Your task to perform on an android device: uninstall "Venmo" Image 0: 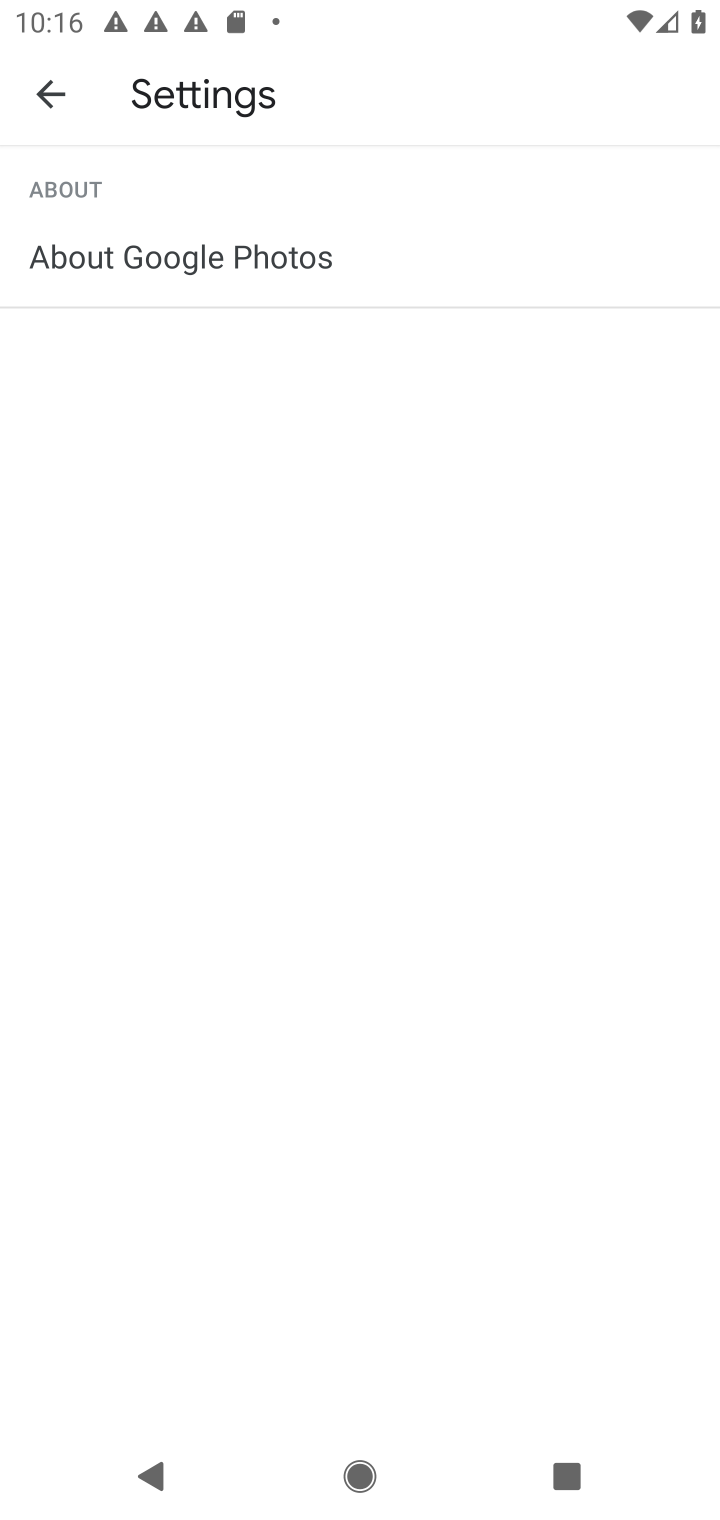
Step 0: press home button
Your task to perform on an android device: uninstall "Venmo" Image 1: 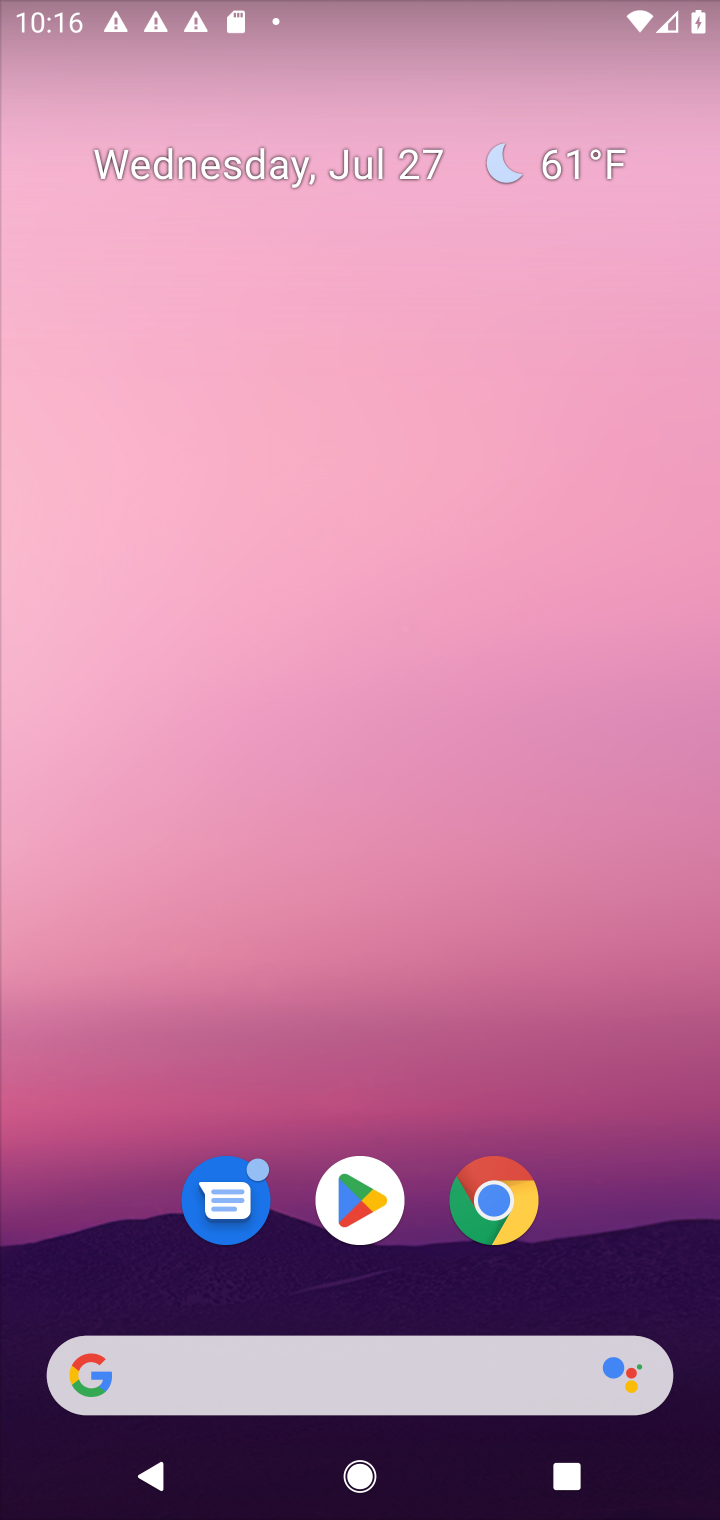
Step 1: click (357, 1205)
Your task to perform on an android device: uninstall "Venmo" Image 2: 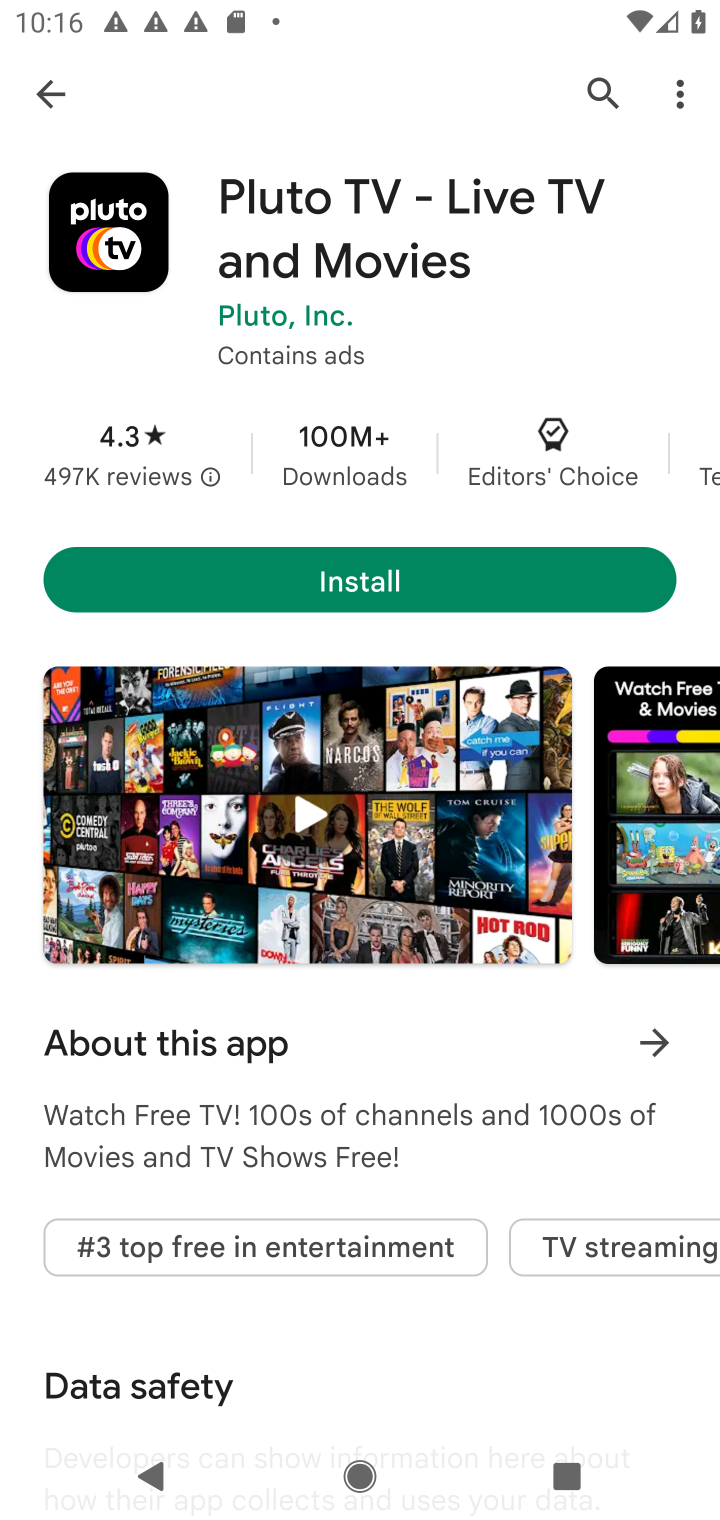
Step 2: click (46, 101)
Your task to perform on an android device: uninstall "Venmo" Image 3: 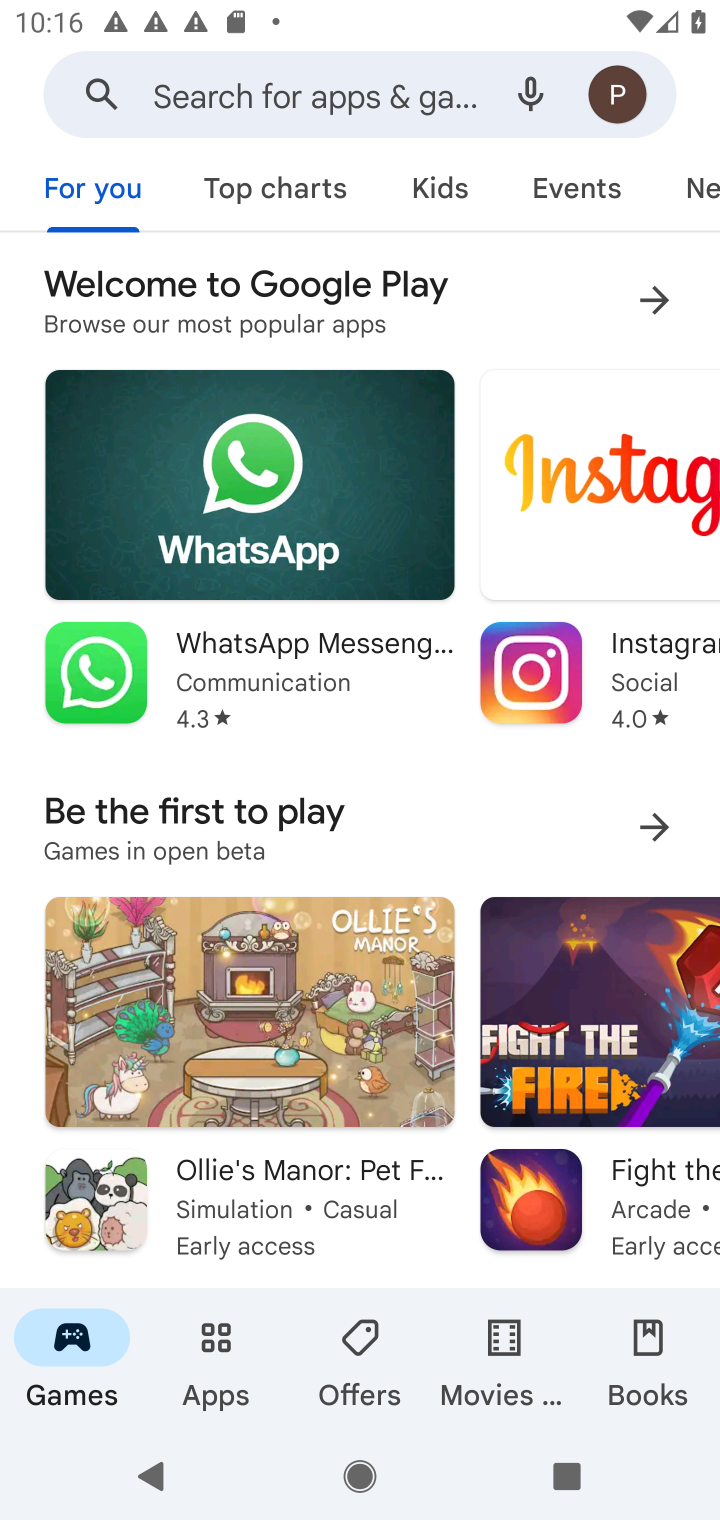
Step 3: click (223, 79)
Your task to perform on an android device: uninstall "Venmo" Image 4: 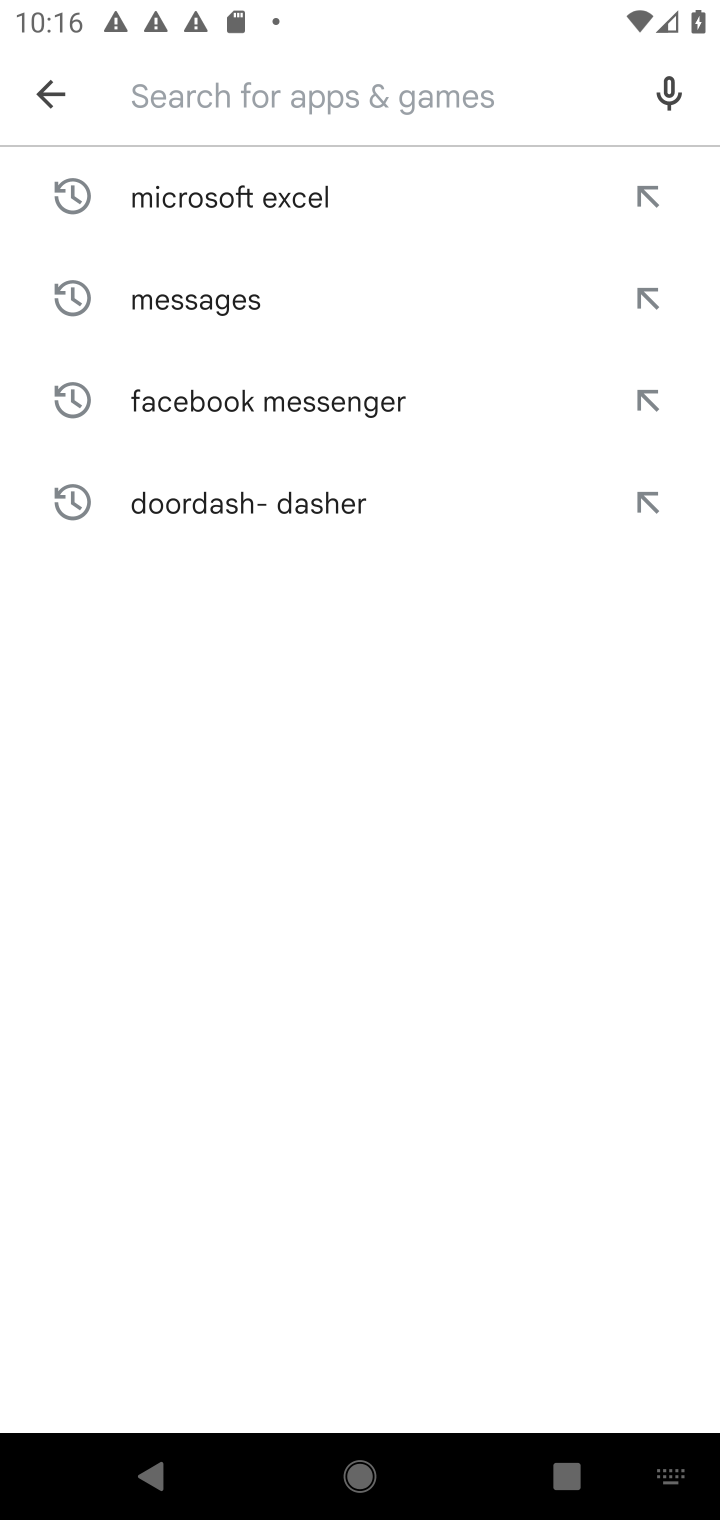
Step 4: type "venmo"
Your task to perform on an android device: uninstall "Venmo" Image 5: 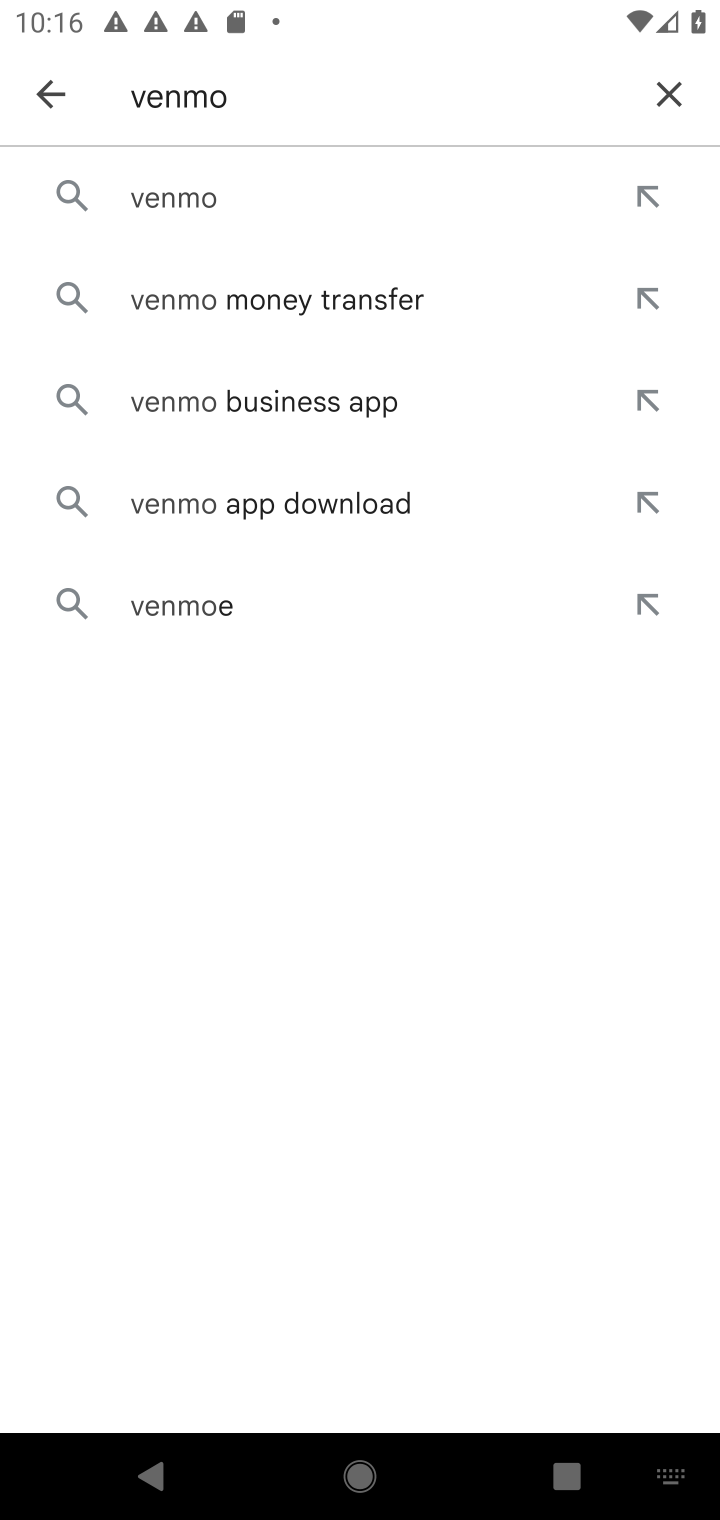
Step 5: click (175, 197)
Your task to perform on an android device: uninstall "Venmo" Image 6: 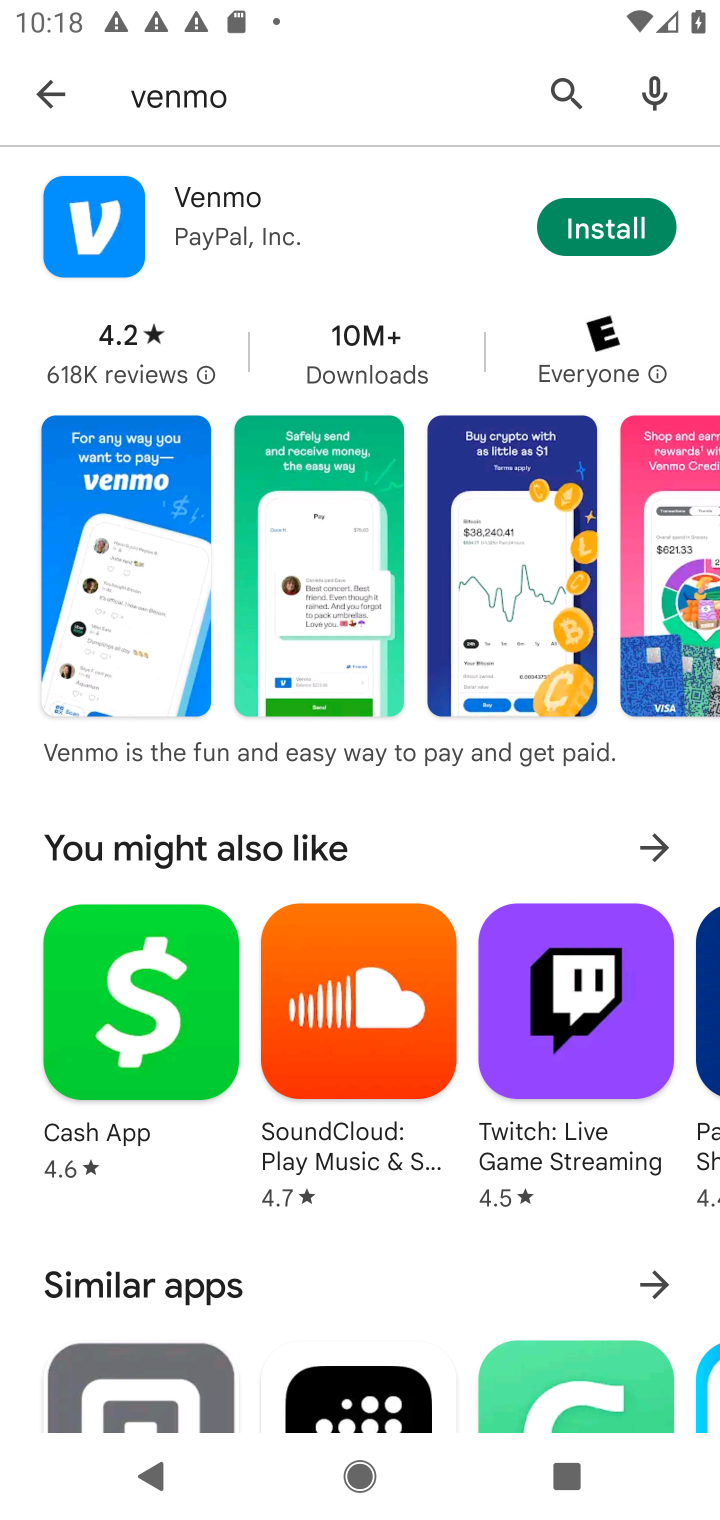
Step 6: click (602, 240)
Your task to perform on an android device: uninstall "Venmo" Image 7: 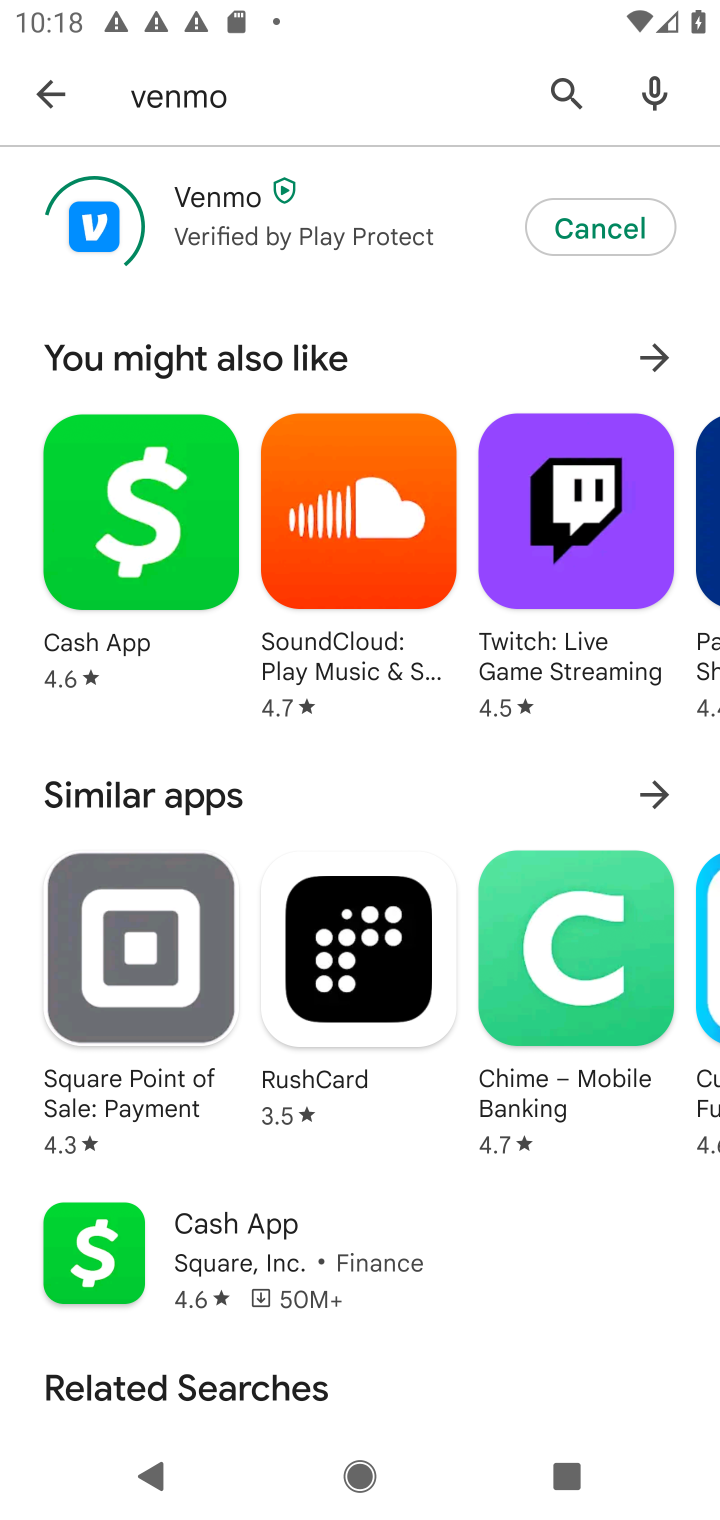
Step 7: click (584, 228)
Your task to perform on an android device: uninstall "Venmo" Image 8: 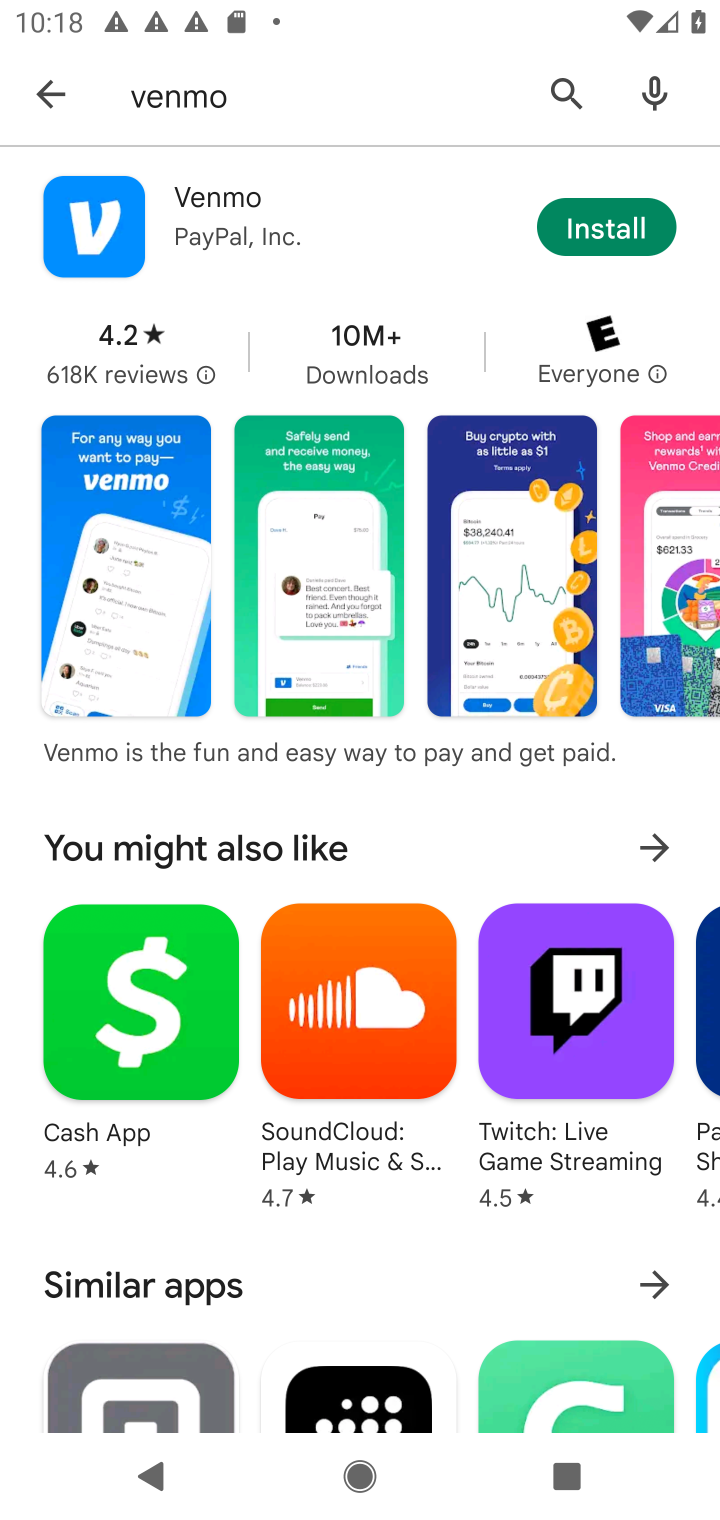
Step 8: task complete